Your task to perform on an android device: turn off javascript in the chrome app Image 0: 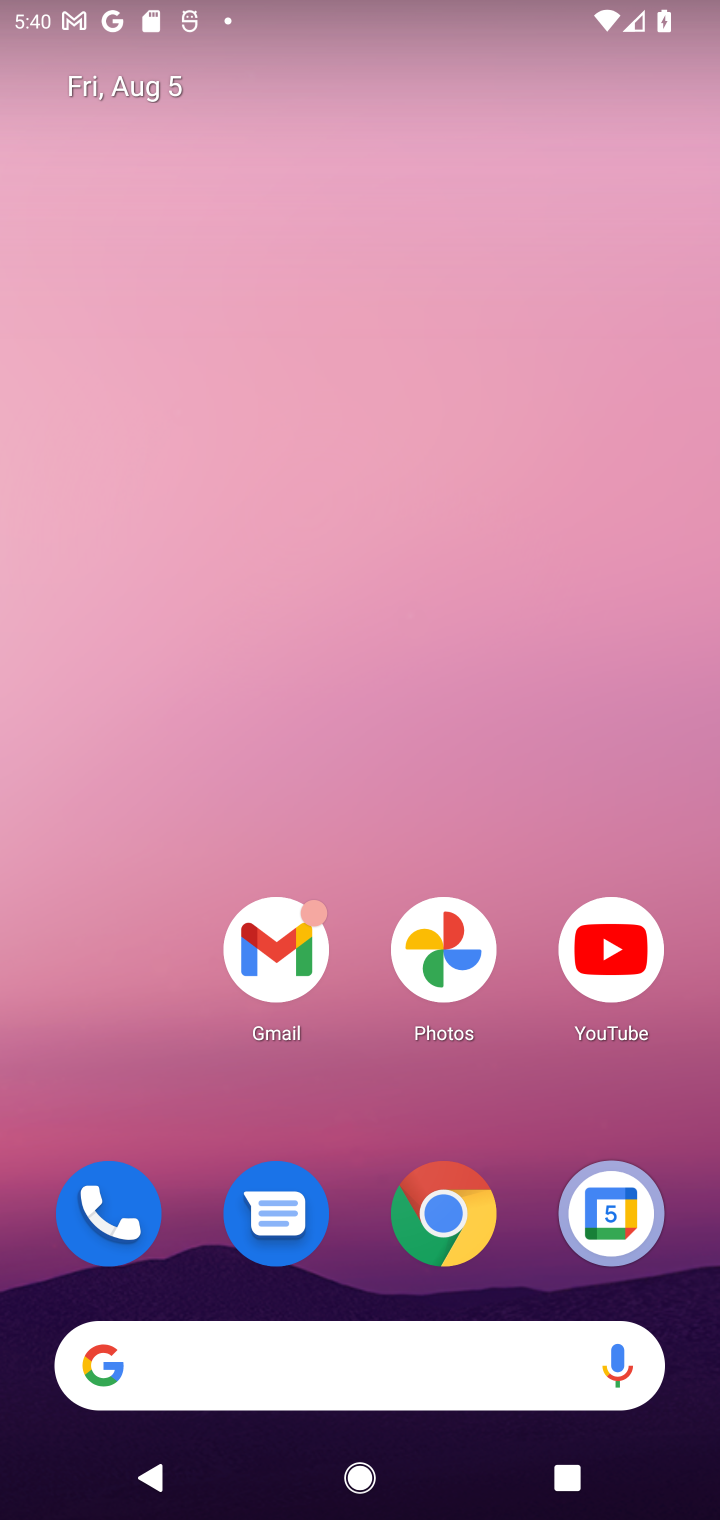
Step 0: click (475, 1260)
Your task to perform on an android device: turn off javascript in the chrome app Image 1: 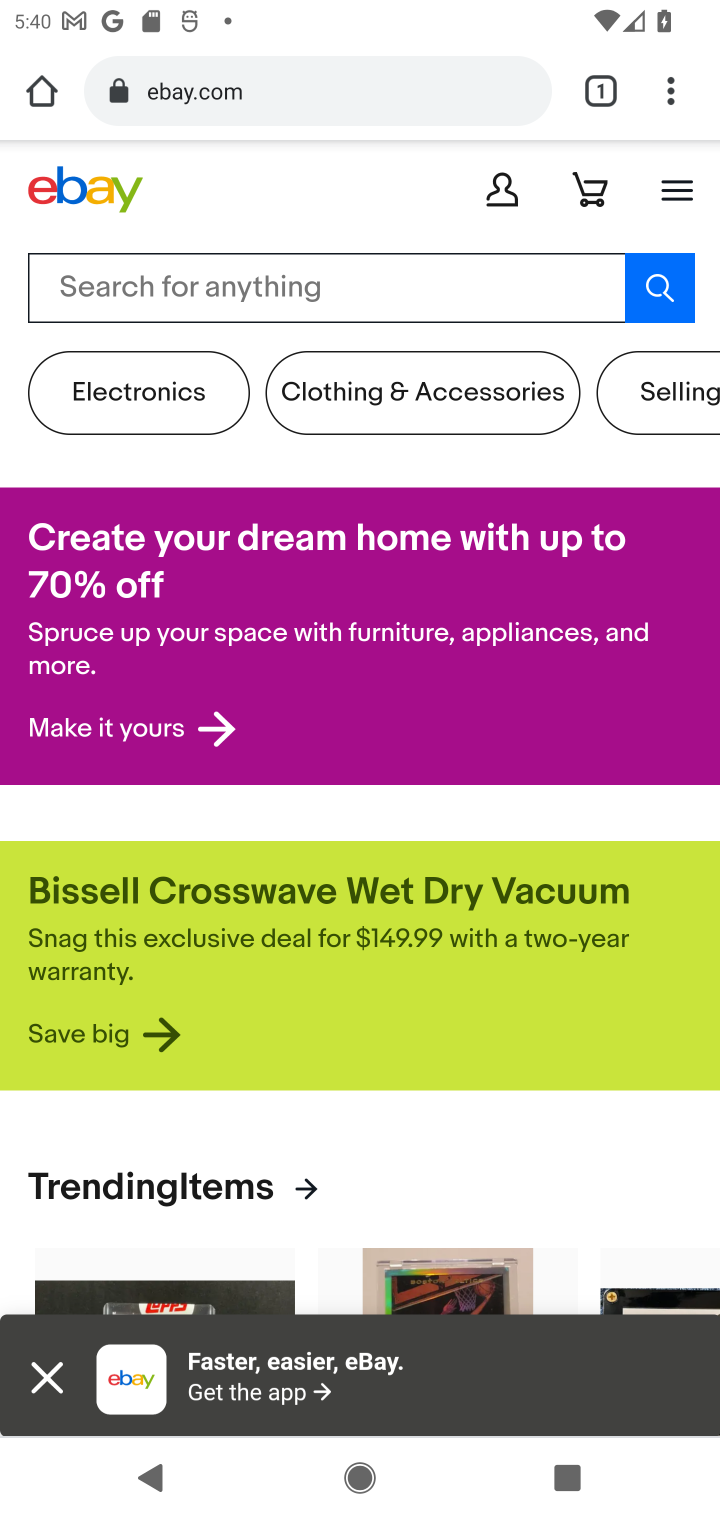
Step 1: click (674, 142)
Your task to perform on an android device: turn off javascript in the chrome app Image 2: 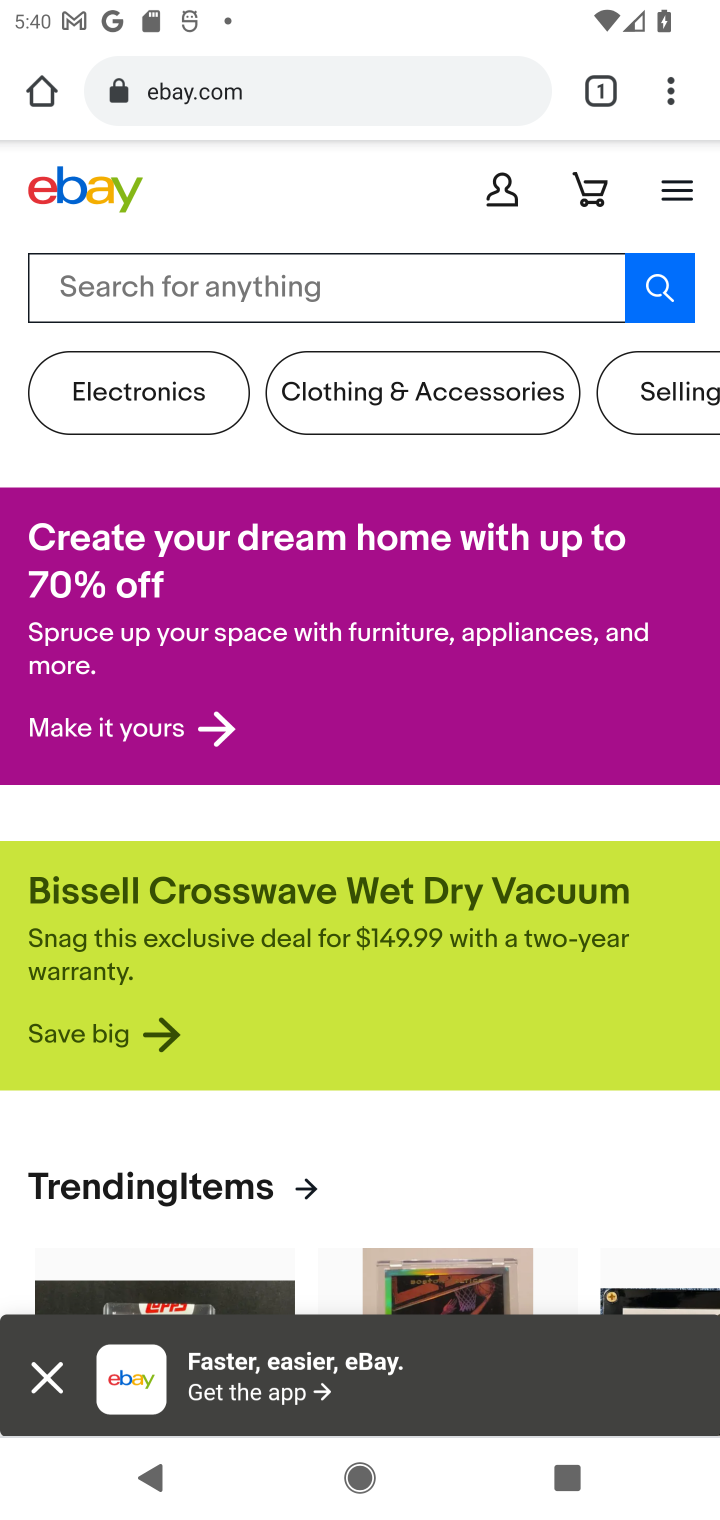
Step 2: click (673, 106)
Your task to perform on an android device: turn off javascript in the chrome app Image 3: 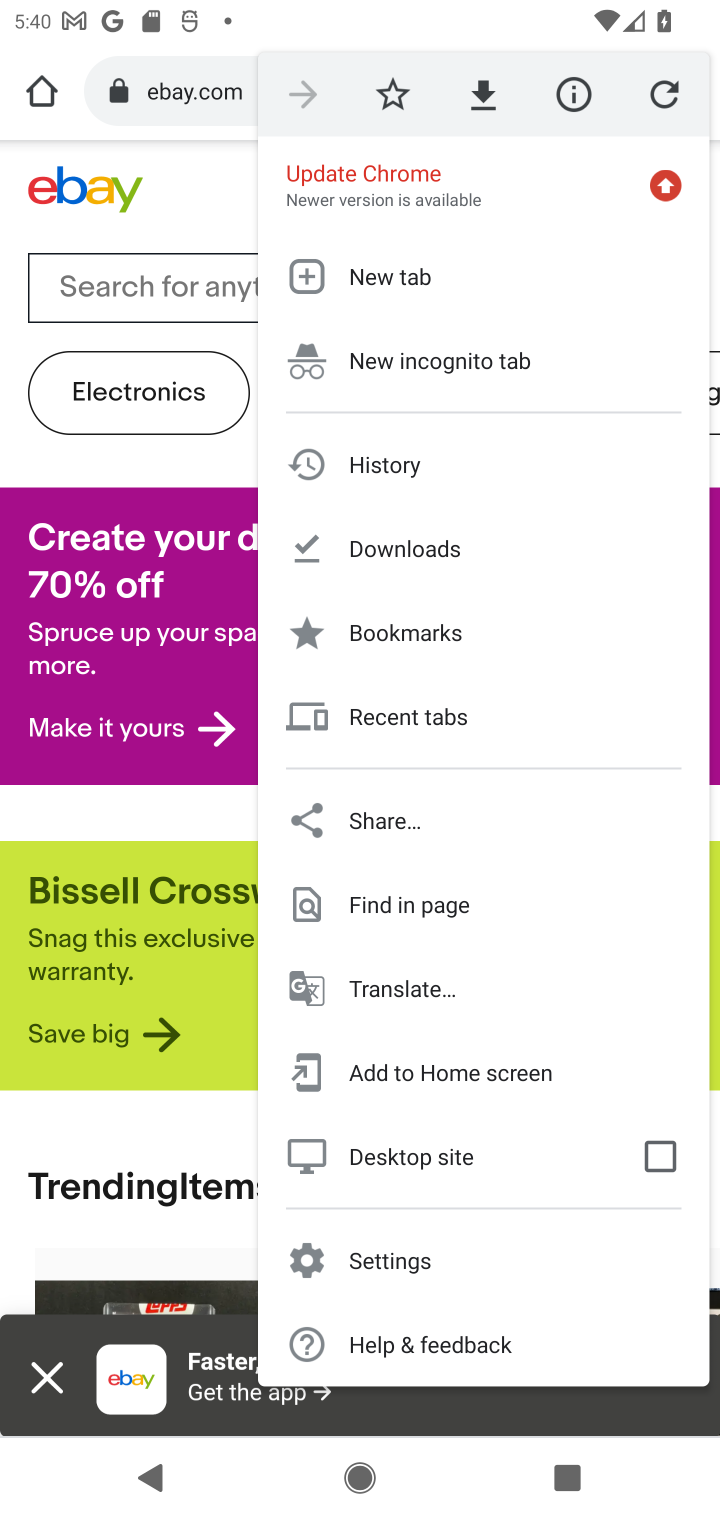
Step 3: click (386, 1252)
Your task to perform on an android device: turn off javascript in the chrome app Image 4: 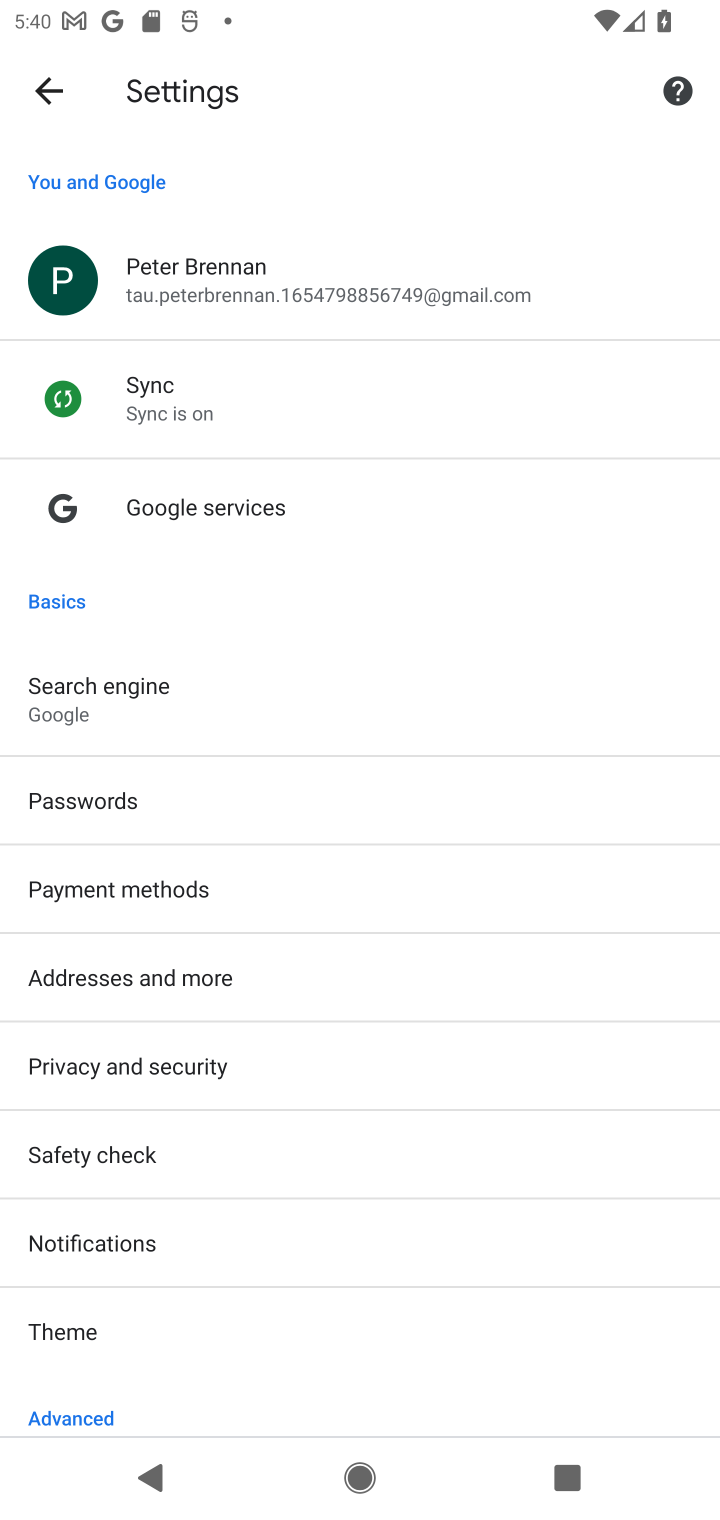
Step 4: drag from (267, 1333) to (358, 398)
Your task to perform on an android device: turn off javascript in the chrome app Image 5: 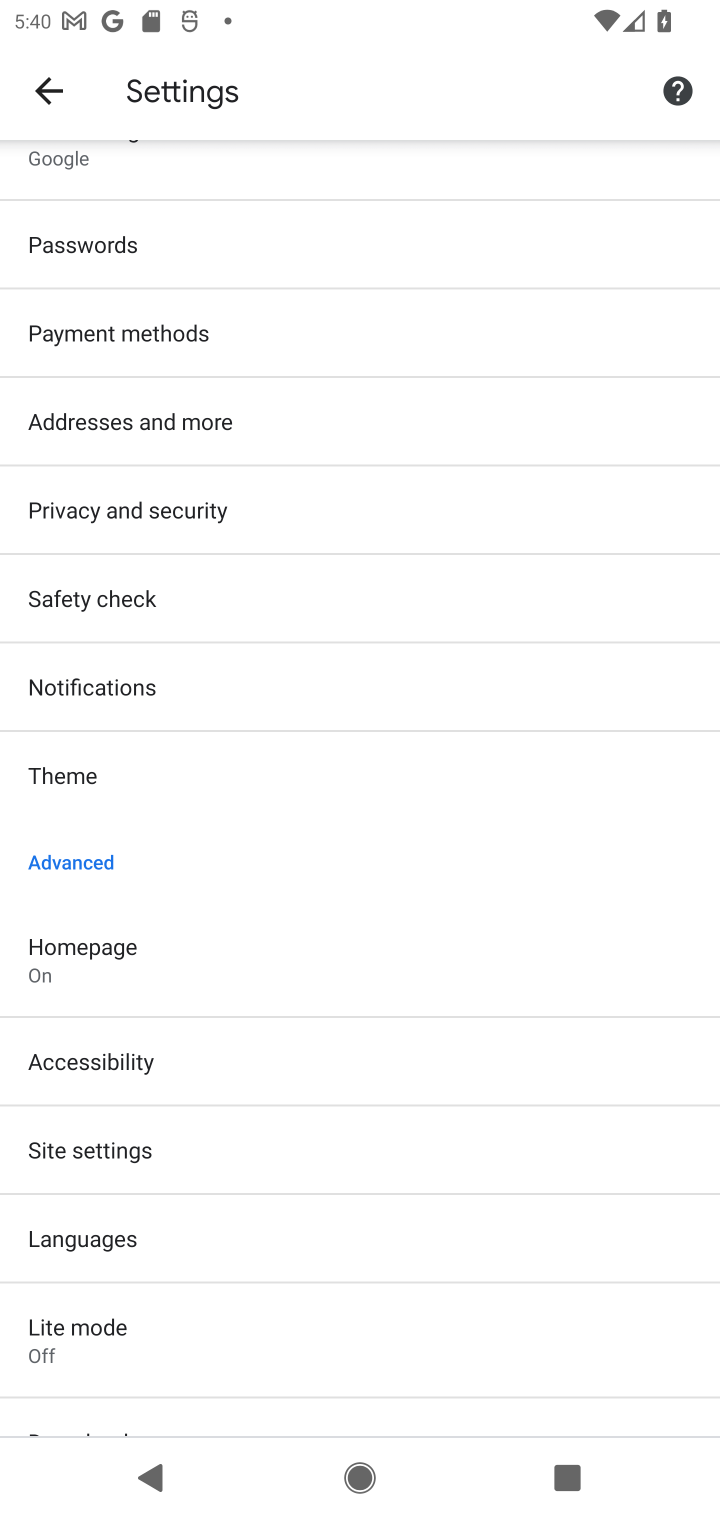
Step 5: click (342, 1154)
Your task to perform on an android device: turn off javascript in the chrome app Image 6: 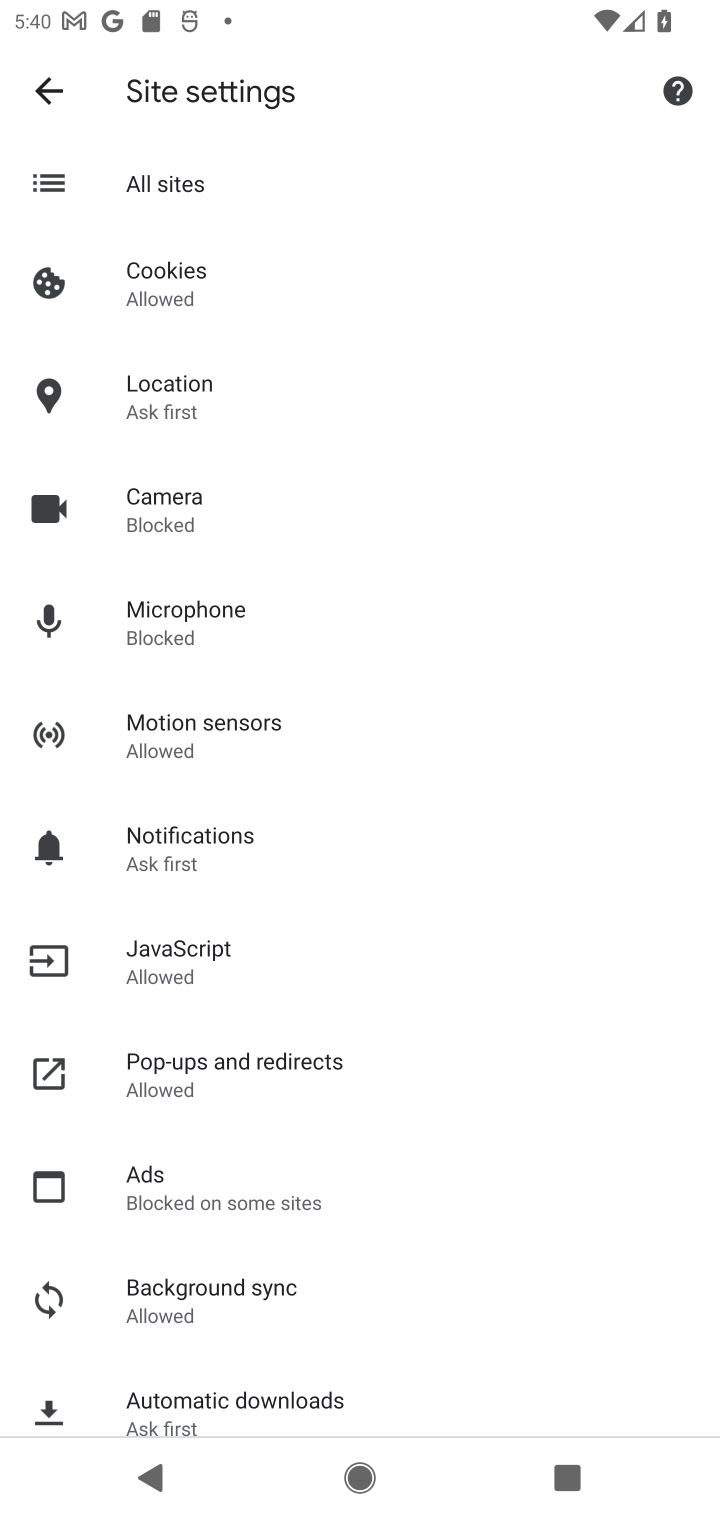
Step 6: click (194, 972)
Your task to perform on an android device: turn off javascript in the chrome app Image 7: 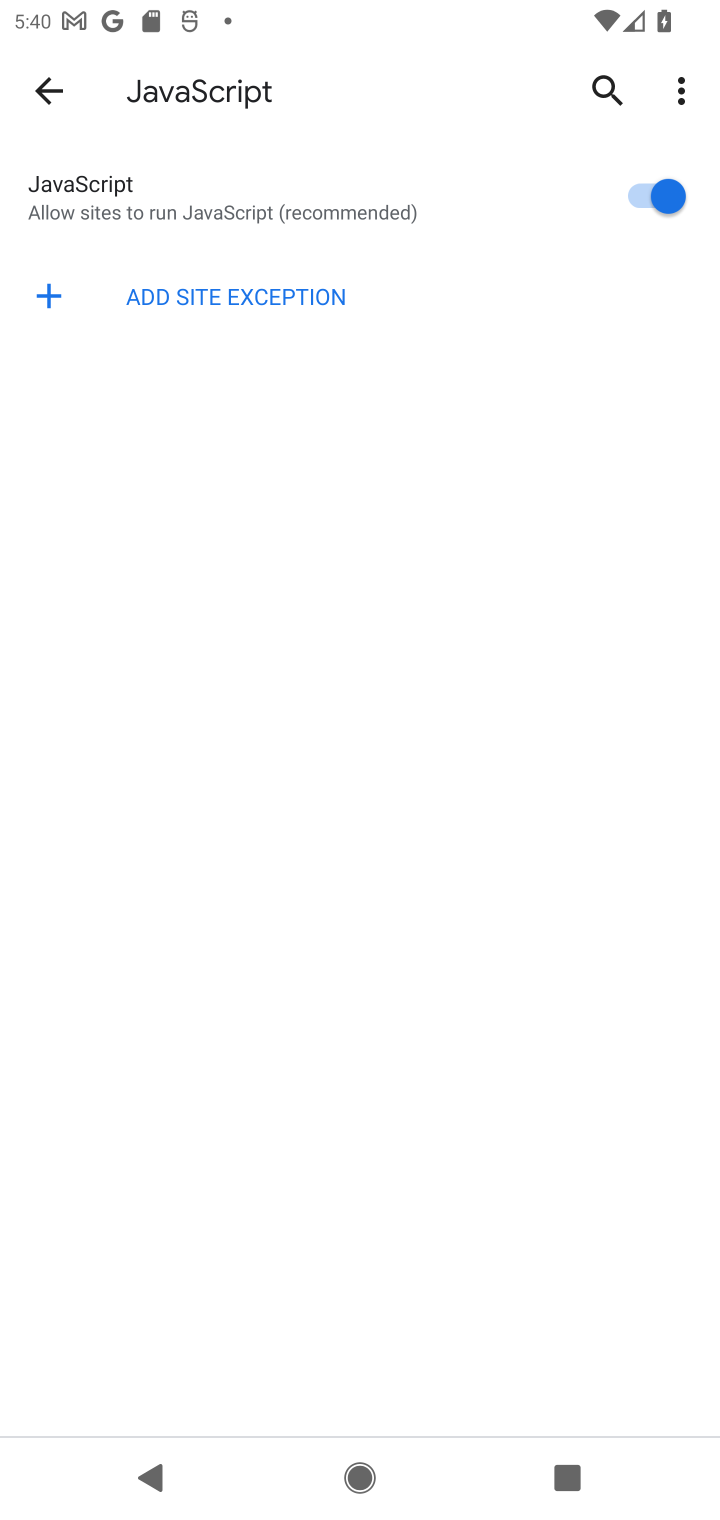
Step 7: click (633, 166)
Your task to perform on an android device: turn off javascript in the chrome app Image 8: 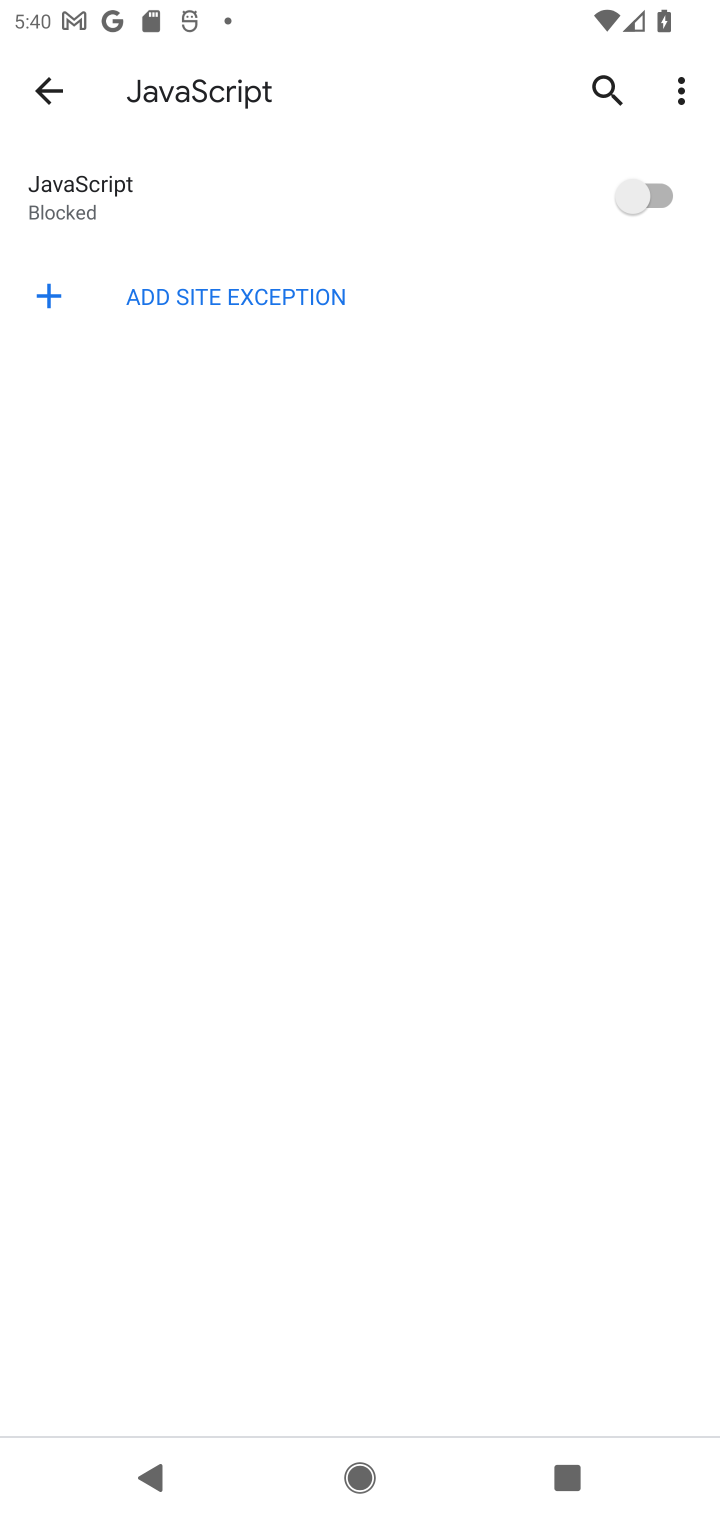
Step 8: task complete